Your task to perform on an android device: Go to eBay Image 0: 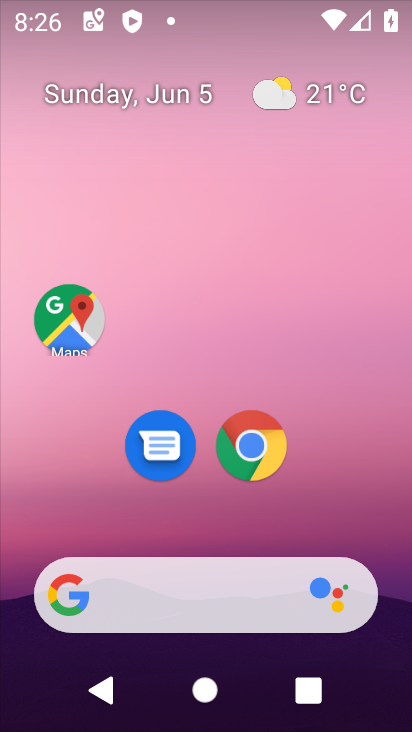
Step 0: click (210, 601)
Your task to perform on an android device: Go to eBay Image 1: 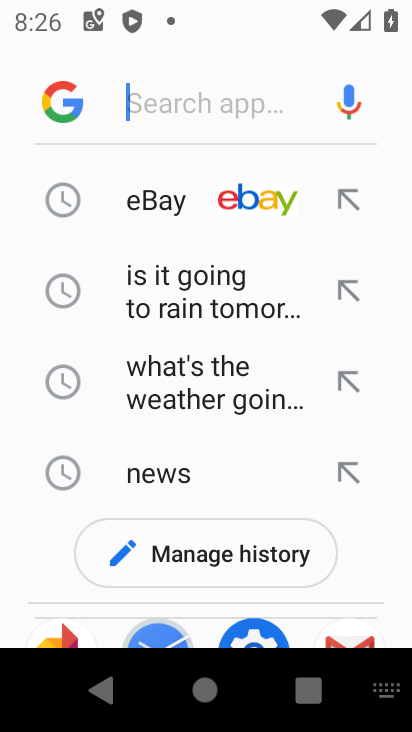
Step 1: click (209, 198)
Your task to perform on an android device: Go to eBay Image 2: 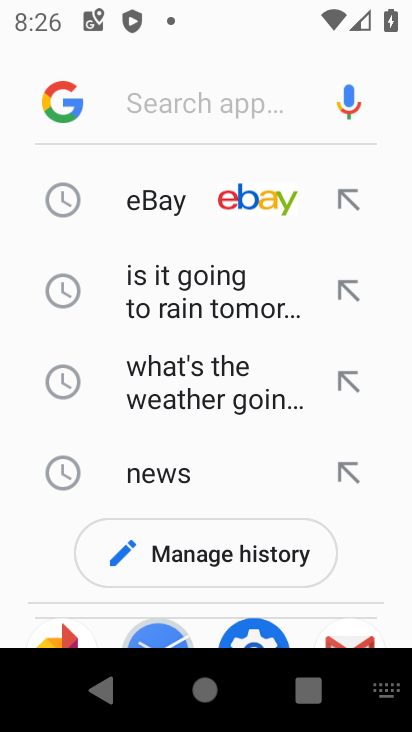
Step 2: type " eBay"
Your task to perform on an android device: Go to eBay Image 3: 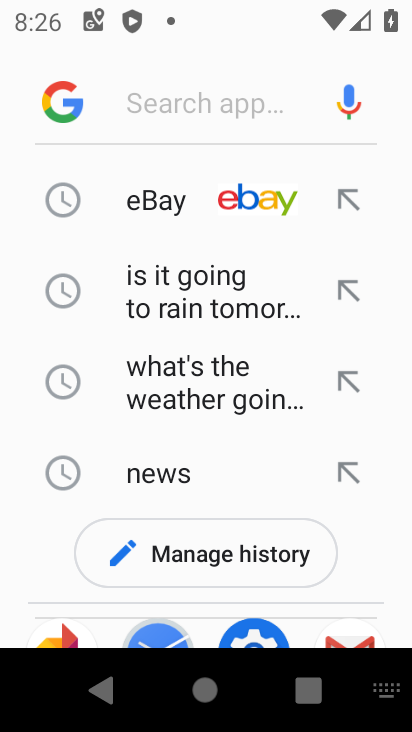
Step 3: click (209, 198)
Your task to perform on an android device: Go to eBay Image 4: 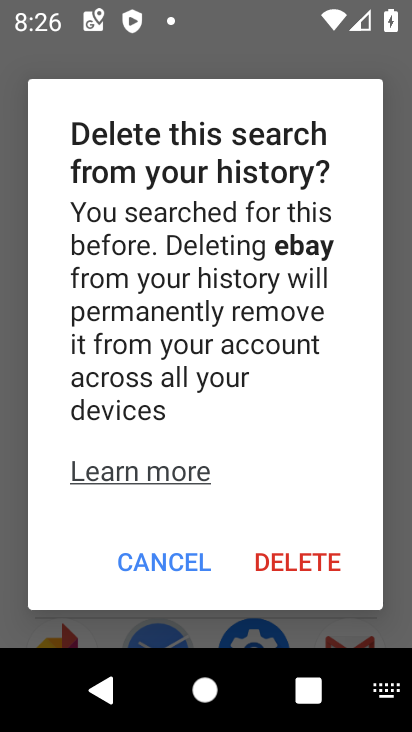
Step 4: click (168, 564)
Your task to perform on an android device: Go to eBay Image 5: 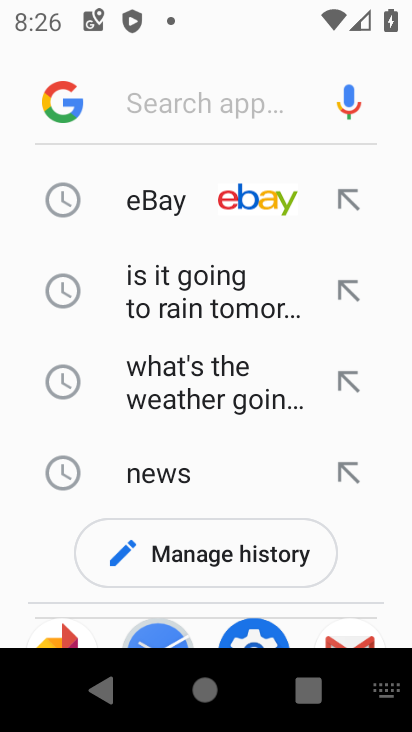
Step 5: click (219, 201)
Your task to perform on an android device: Go to eBay Image 6: 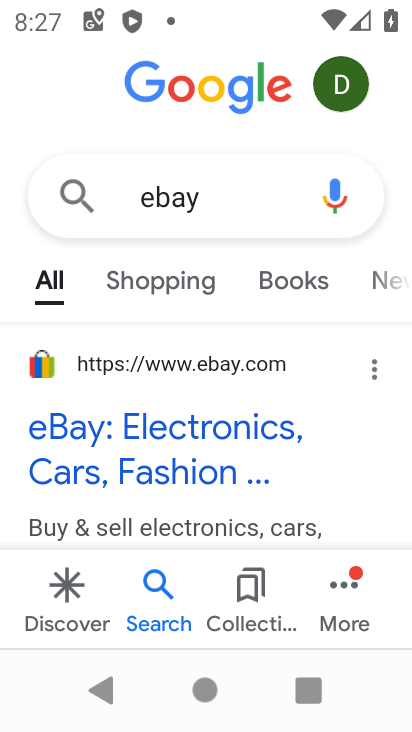
Step 6: click (167, 432)
Your task to perform on an android device: Go to eBay Image 7: 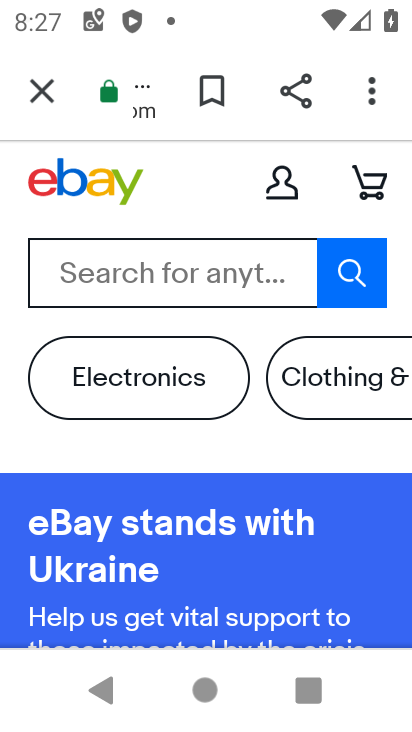
Step 7: task complete